Your task to perform on an android device: allow cookies in the chrome app Image 0: 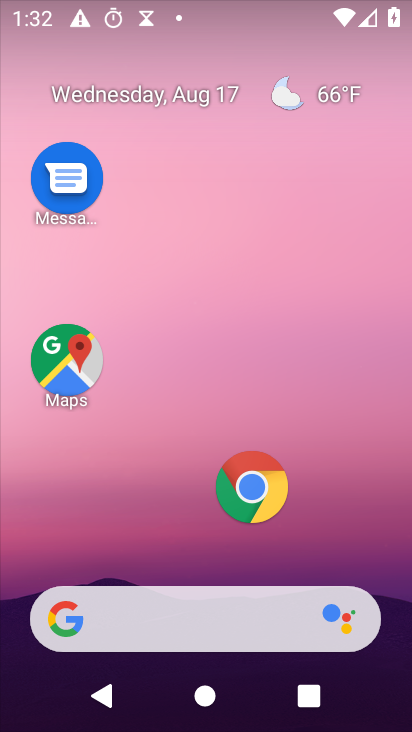
Step 0: press home button
Your task to perform on an android device: allow cookies in the chrome app Image 1: 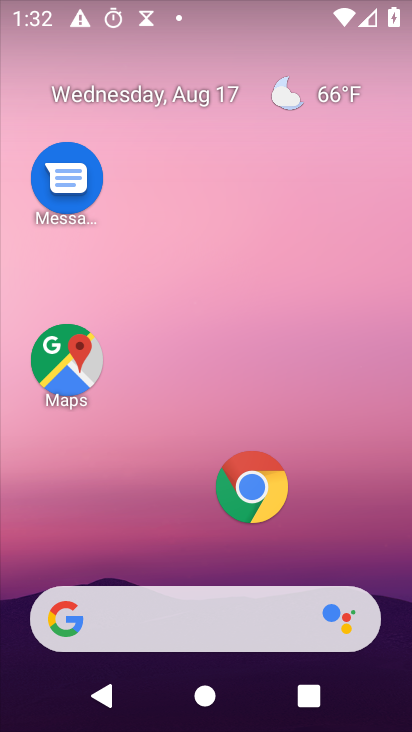
Step 1: click (253, 483)
Your task to perform on an android device: allow cookies in the chrome app Image 2: 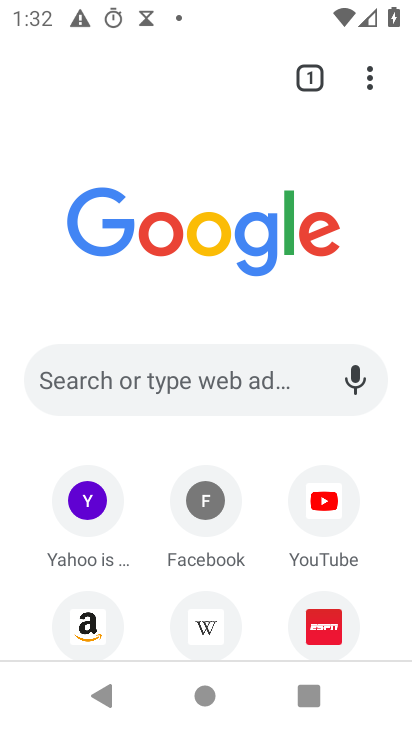
Step 2: drag from (369, 76) to (131, 567)
Your task to perform on an android device: allow cookies in the chrome app Image 3: 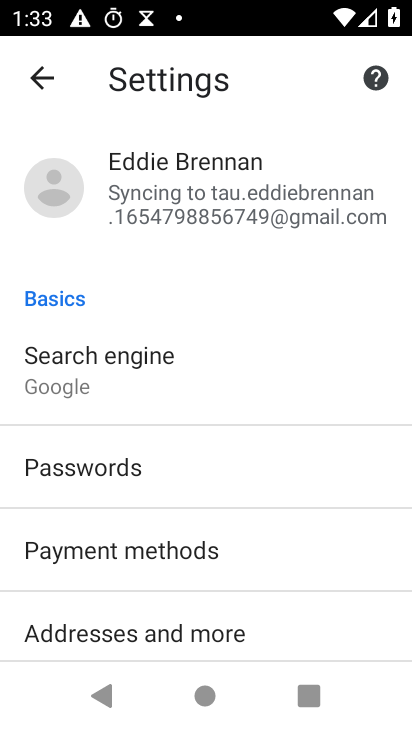
Step 3: drag from (311, 626) to (302, 179)
Your task to perform on an android device: allow cookies in the chrome app Image 4: 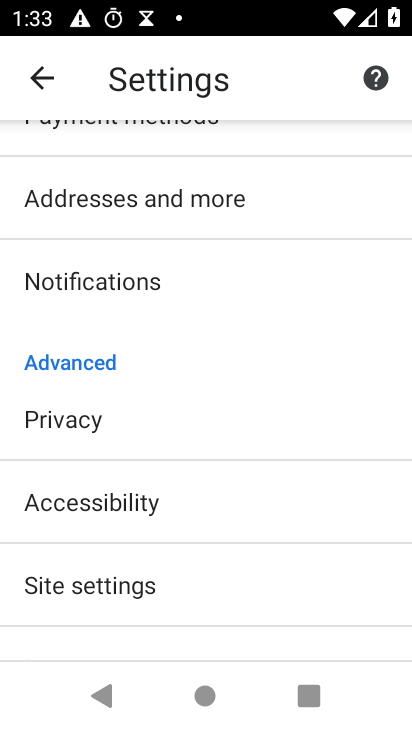
Step 4: click (91, 590)
Your task to perform on an android device: allow cookies in the chrome app Image 5: 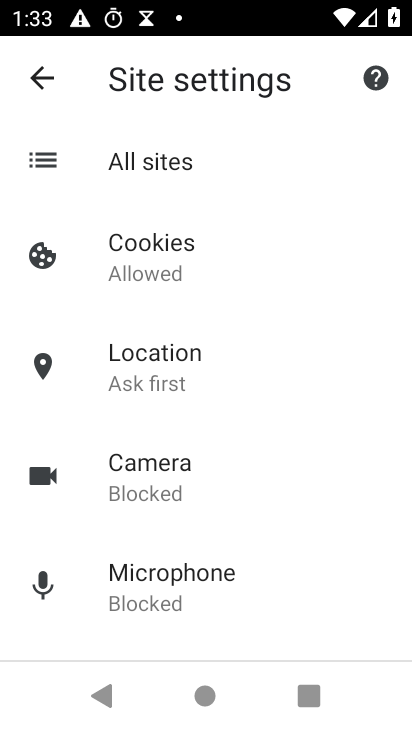
Step 5: click (144, 253)
Your task to perform on an android device: allow cookies in the chrome app Image 6: 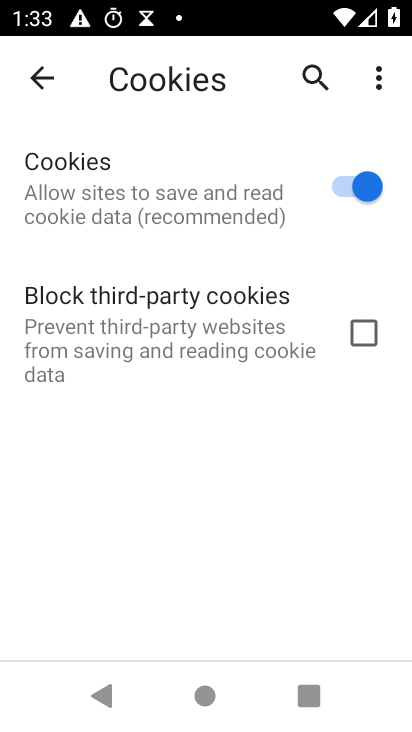
Step 6: task complete